Your task to perform on an android device: Check the weather Image 0: 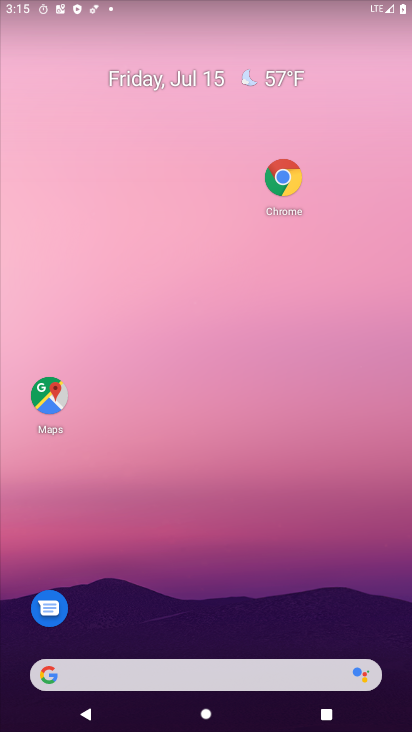
Step 0: click (276, 178)
Your task to perform on an android device: Check the weather Image 1: 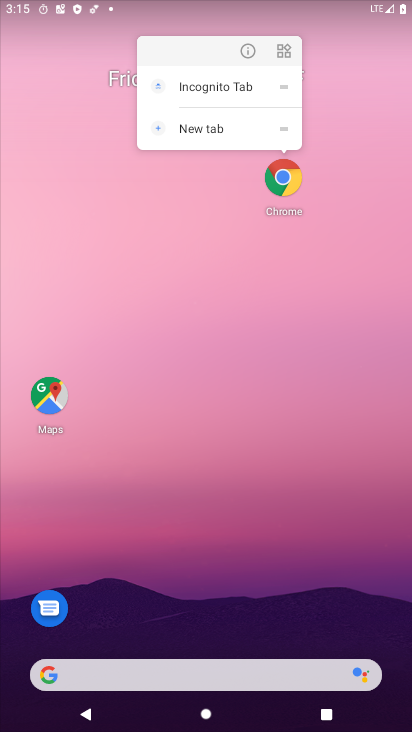
Step 1: click (276, 178)
Your task to perform on an android device: Check the weather Image 2: 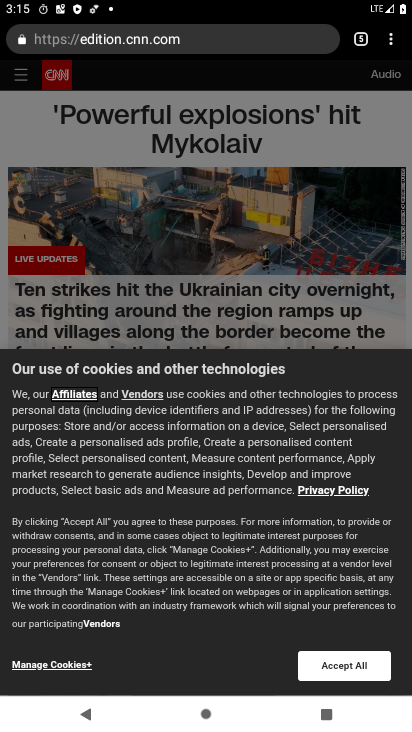
Step 2: click (198, 32)
Your task to perform on an android device: Check the weather Image 3: 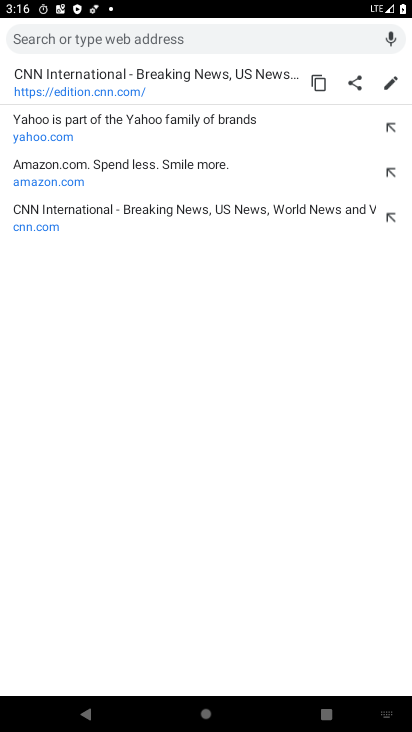
Step 3: type "weather"
Your task to perform on an android device: Check the weather Image 4: 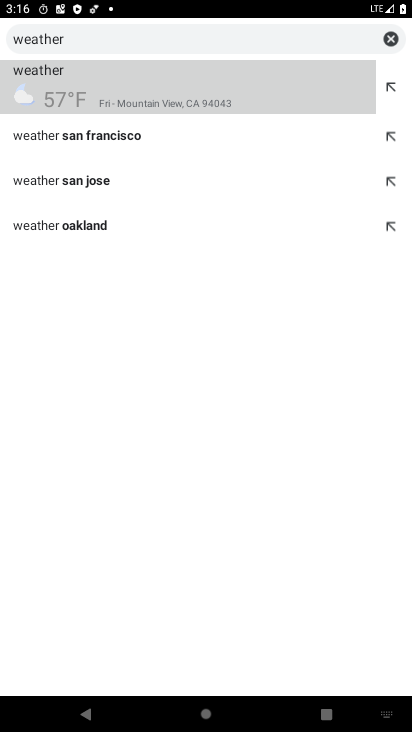
Step 4: click (249, 82)
Your task to perform on an android device: Check the weather Image 5: 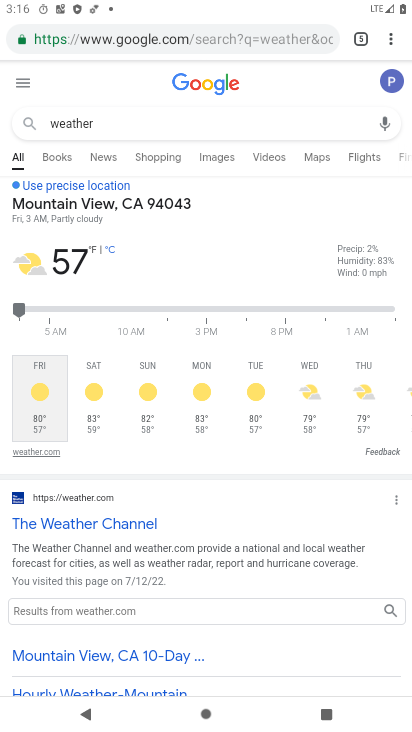
Step 5: task complete